Your task to perform on an android device: Open Chrome and go to the settings page Image 0: 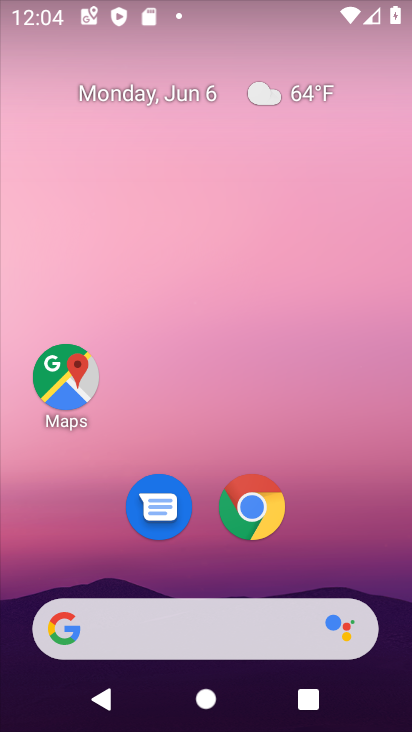
Step 0: click (253, 510)
Your task to perform on an android device: Open Chrome and go to the settings page Image 1: 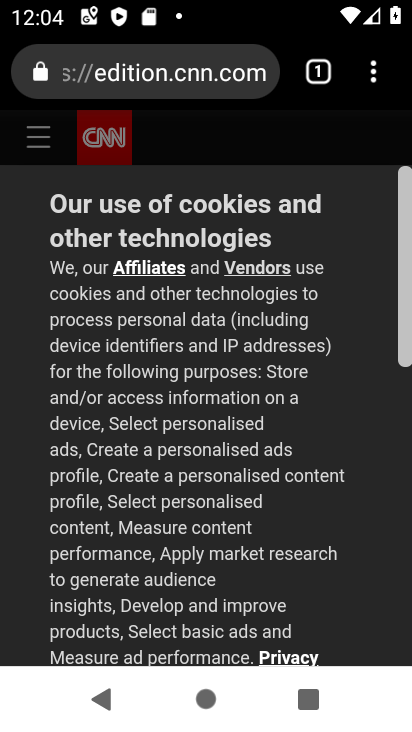
Step 1: click (369, 72)
Your task to perform on an android device: Open Chrome and go to the settings page Image 2: 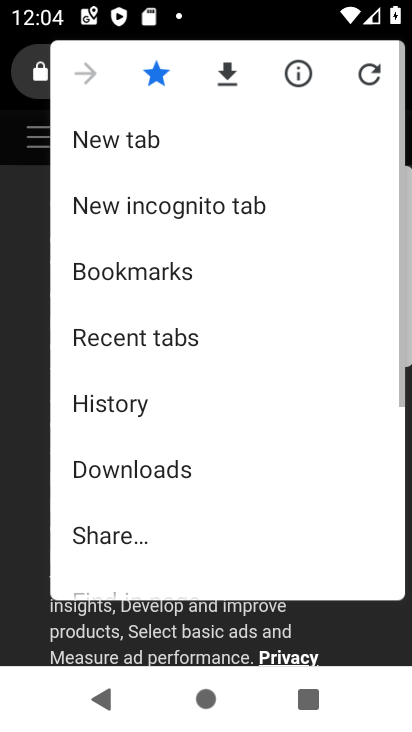
Step 2: drag from (162, 470) to (236, 107)
Your task to perform on an android device: Open Chrome and go to the settings page Image 3: 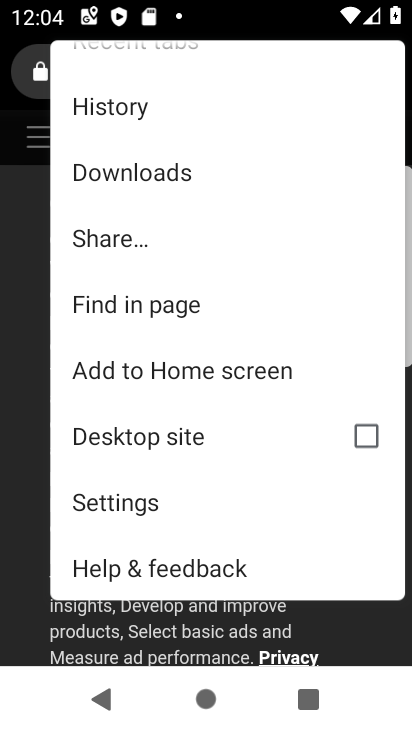
Step 3: click (123, 499)
Your task to perform on an android device: Open Chrome and go to the settings page Image 4: 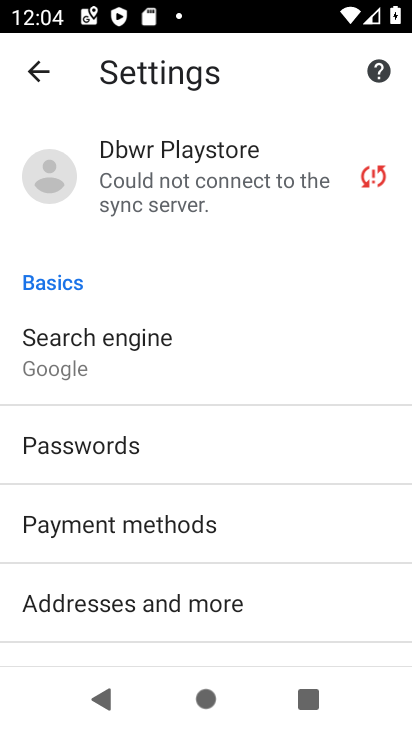
Step 4: task complete